Your task to perform on an android device: Go to Yahoo.com Image 0: 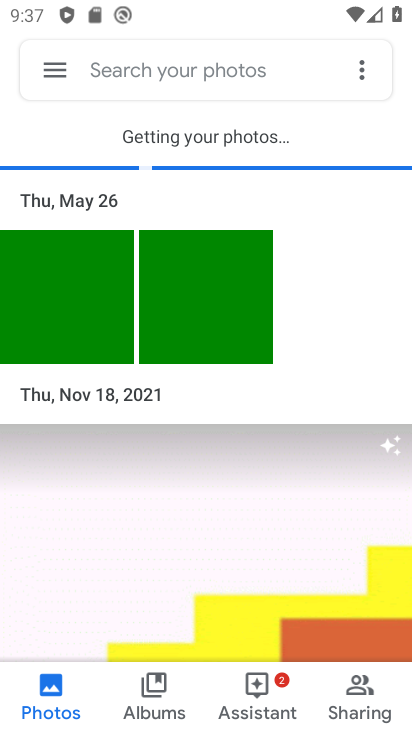
Step 0: press back button
Your task to perform on an android device: Go to Yahoo.com Image 1: 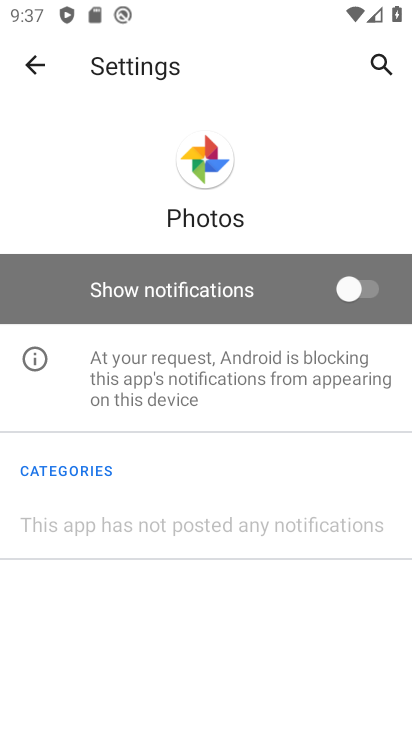
Step 1: press home button
Your task to perform on an android device: Go to Yahoo.com Image 2: 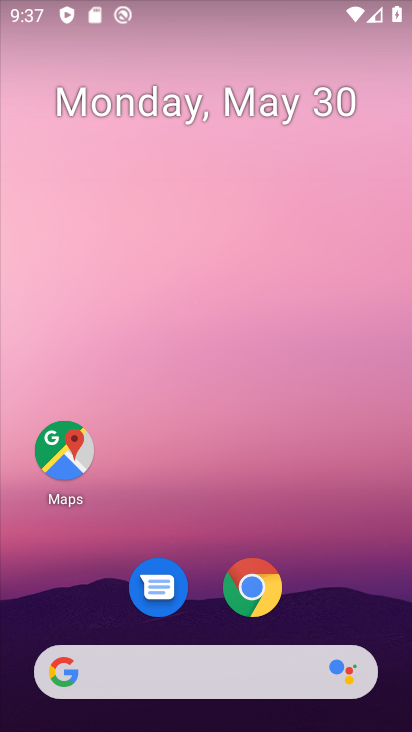
Step 2: drag from (311, 590) to (264, 20)
Your task to perform on an android device: Go to Yahoo.com Image 3: 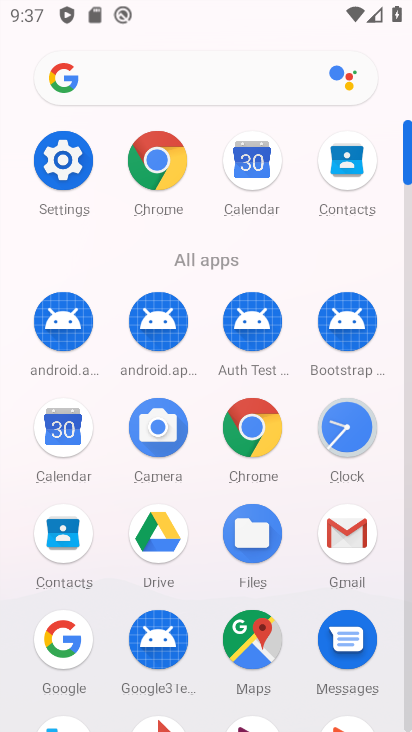
Step 3: click (157, 158)
Your task to perform on an android device: Go to Yahoo.com Image 4: 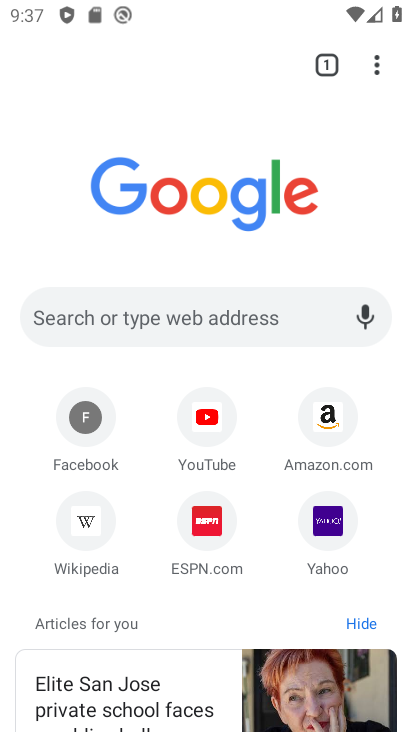
Step 4: click (320, 520)
Your task to perform on an android device: Go to Yahoo.com Image 5: 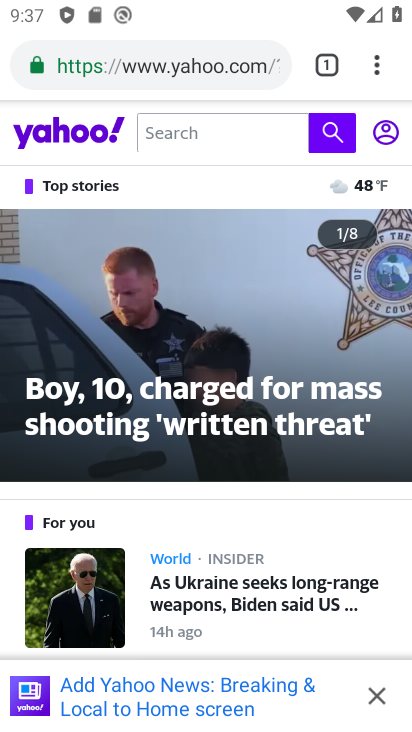
Step 5: task complete